Your task to perform on an android device: When is my next appointment? Image 0: 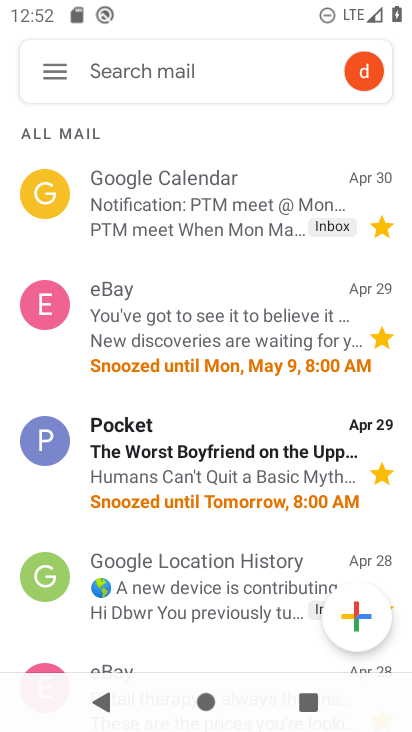
Step 0: press home button
Your task to perform on an android device: When is my next appointment? Image 1: 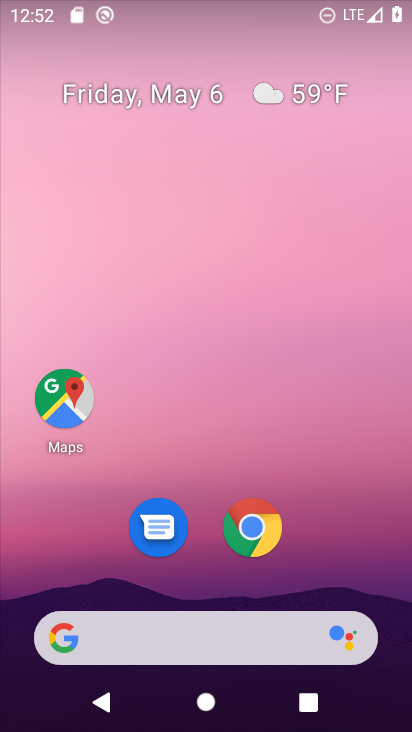
Step 1: drag from (336, 527) to (215, 2)
Your task to perform on an android device: When is my next appointment? Image 2: 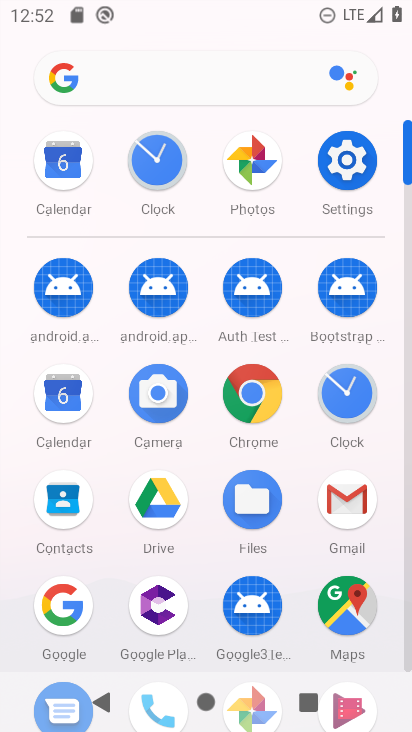
Step 2: click (64, 389)
Your task to perform on an android device: When is my next appointment? Image 3: 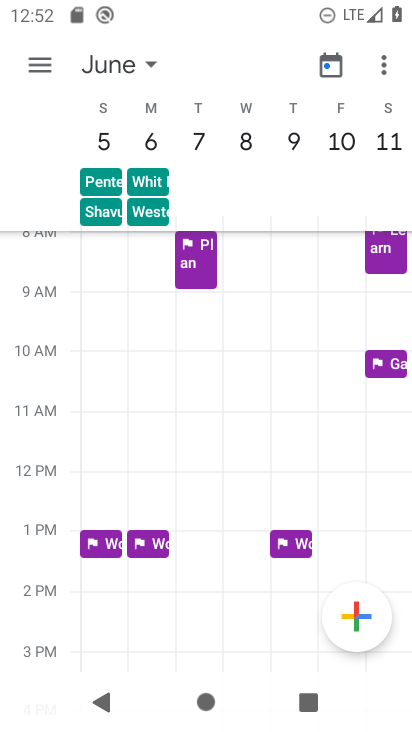
Step 3: click (34, 68)
Your task to perform on an android device: When is my next appointment? Image 4: 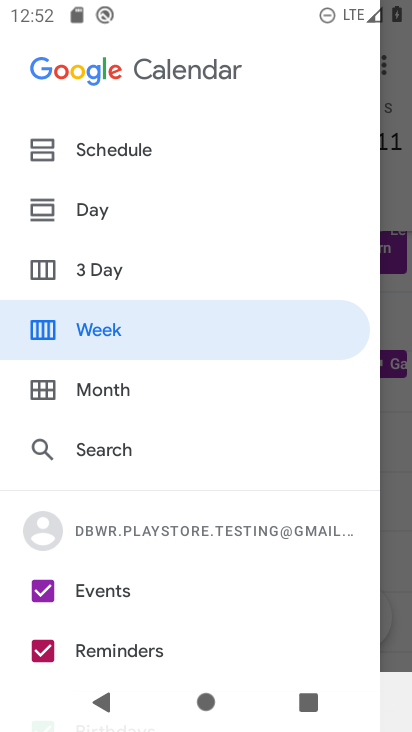
Step 4: click (129, 155)
Your task to perform on an android device: When is my next appointment? Image 5: 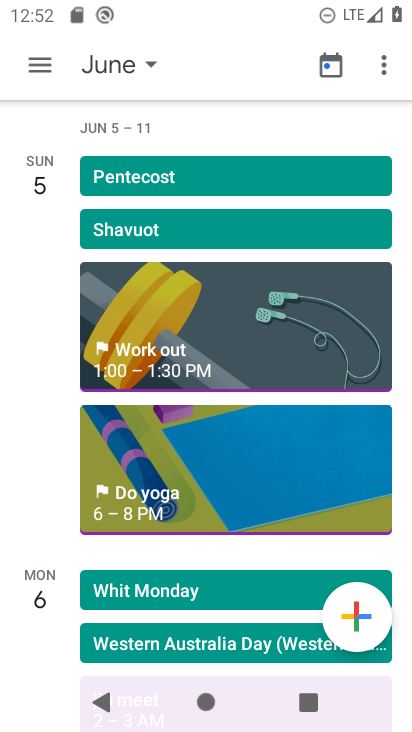
Step 5: click (334, 67)
Your task to perform on an android device: When is my next appointment? Image 6: 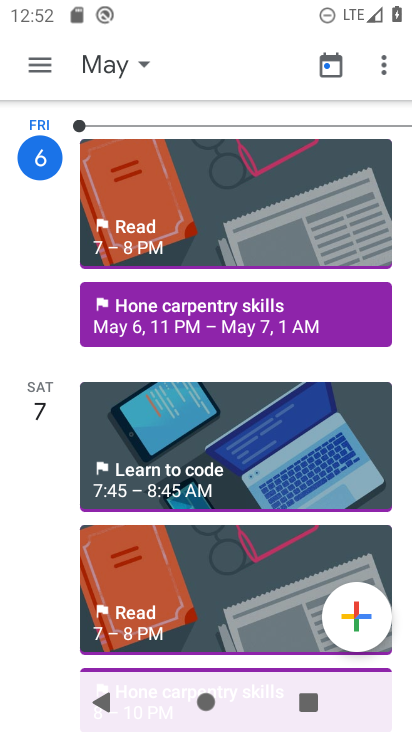
Step 6: click (145, 68)
Your task to perform on an android device: When is my next appointment? Image 7: 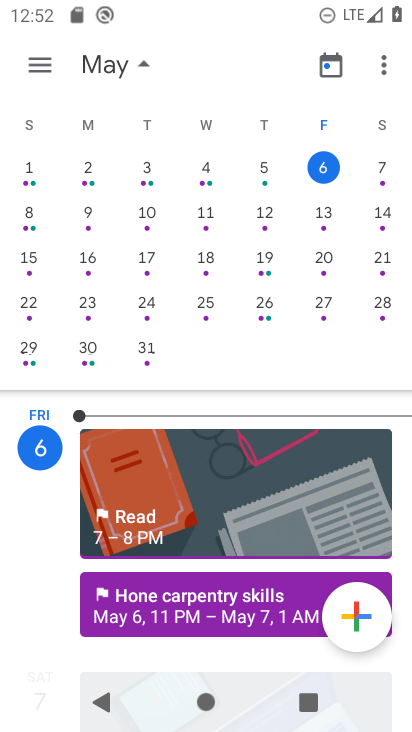
Step 7: click (86, 212)
Your task to perform on an android device: When is my next appointment? Image 8: 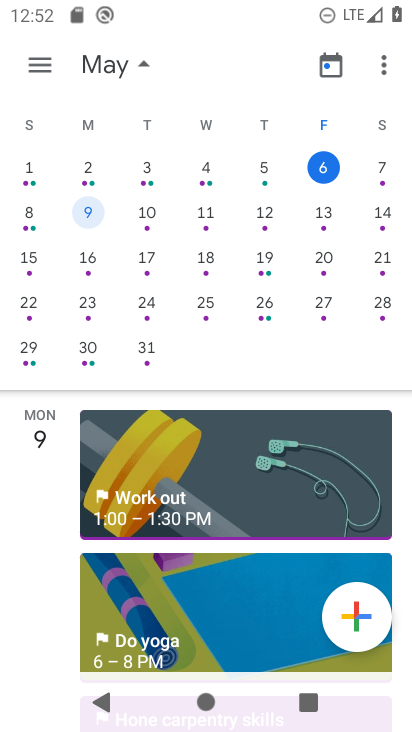
Step 8: task complete